Your task to perform on an android device: toggle javascript in the chrome app Image 0: 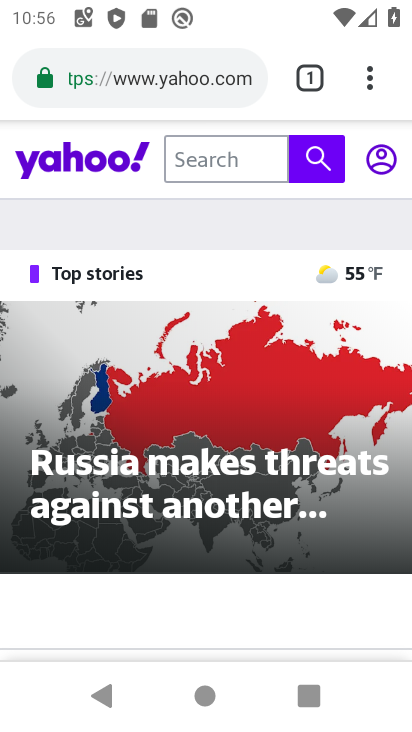
Step 0: press home button
Your task to perform on an android device: toggle javascript in the chrome app Image 1: 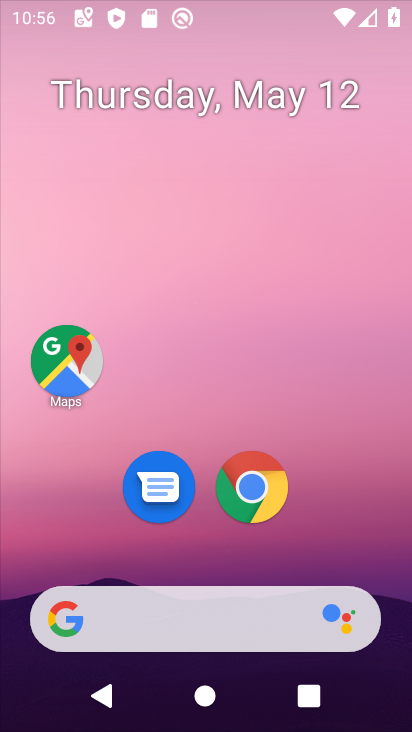
Step 1: drag from (61, 603) to (295, 183)
Your task to perform on an android device: toggle javascript in the chrome app Image 2: 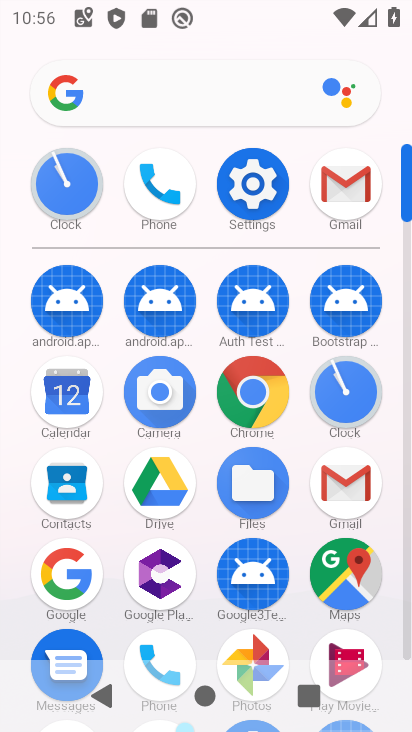
Step 2: click (251, 381)
Your task to perform on an android device: toggle javascript in the chrome app Image 3: 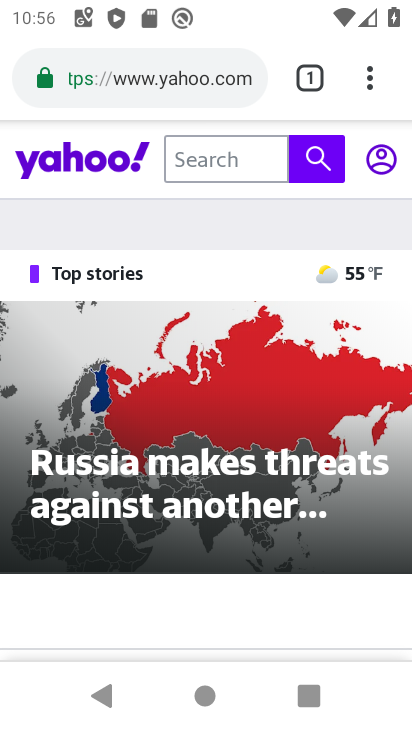
Step 3: click (368, 73)
Your task to perform on an android device: toggle javascript in the chrome app Image 4: 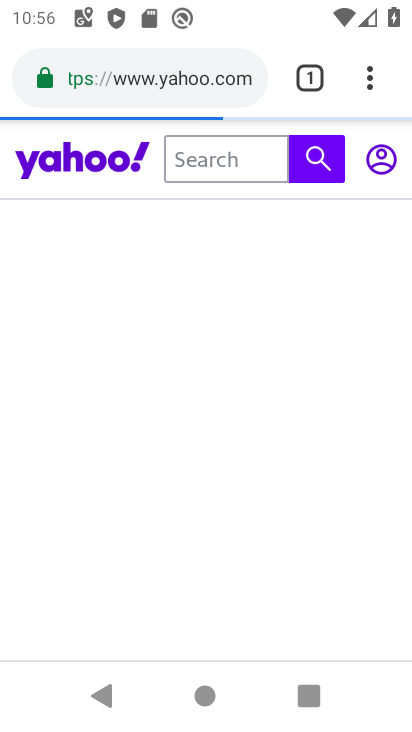
Step 4: click (353, 62)
Your task to perform on an android device: toggle javascript in the chrome app Image 5: 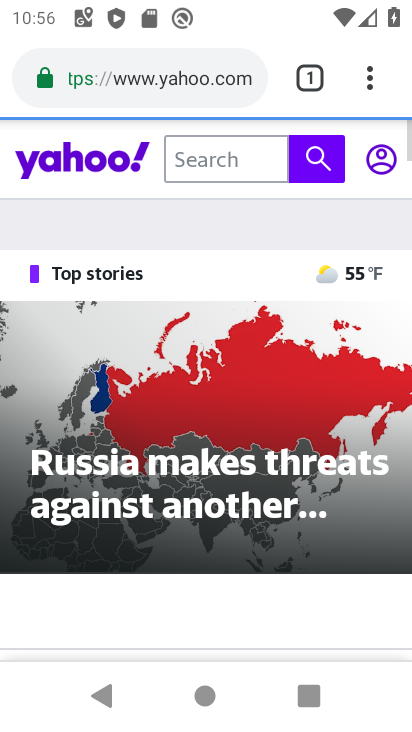
Step 5: click (370, 81)
Your task to perform on an android device: toggle javascript in the chrome app Image 6: 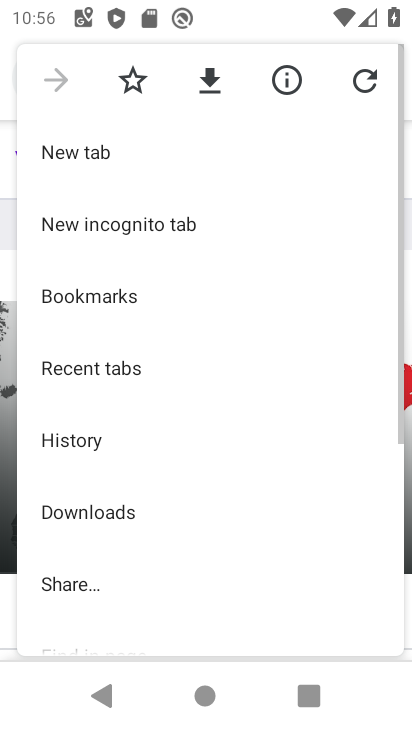
Step 6: drag from (86, 614) to (270, 132)
Your task to perform on an android device: toggle javascript in the chrome app Image 7: 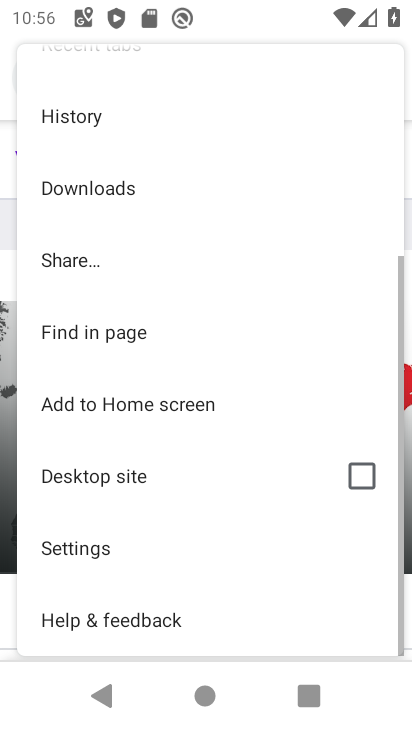
Step 7: click (110, 557)
Your task to perform on an android device: toggle javascript in the chrome app Image 8: 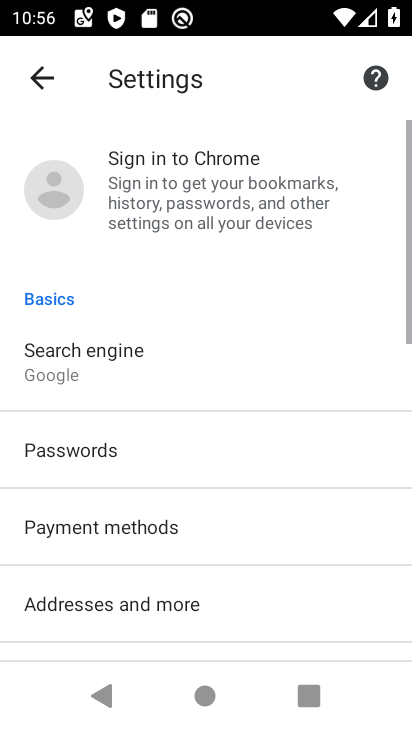
Step 8: drag from (40, 557) to (192, 196)
Your task to perform on an android device: toggle javascript in the chrome app Image 9: 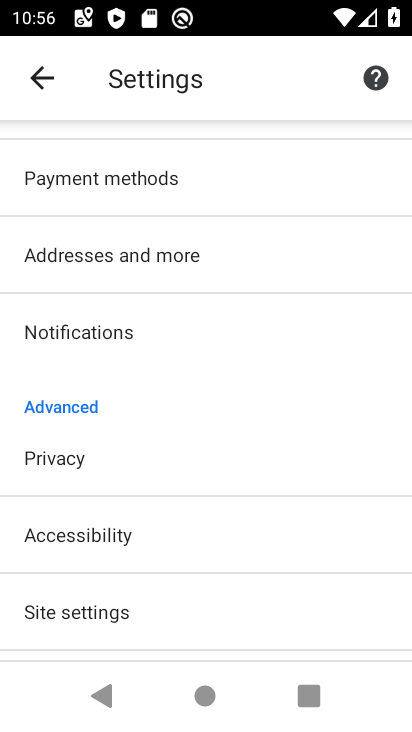
Step 9: click (67, 608)
Your task to perform on an android device: toggle javascript in the chrome app Image 10: 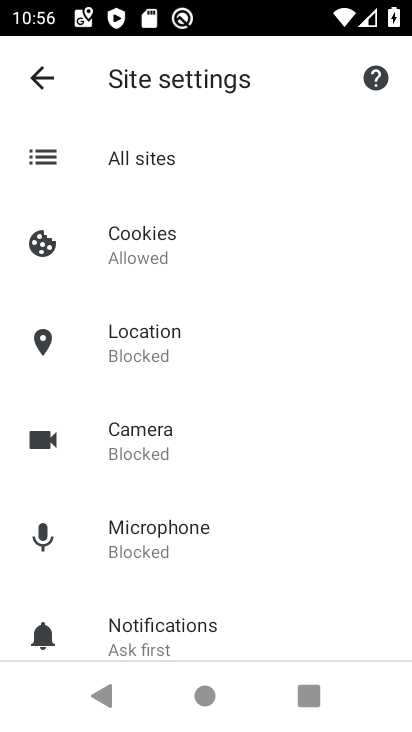
Step 10: drag from (36, 645) to (284, 116)
Your task to perform on an android device: toggle javascript in the chrome app Image 11: 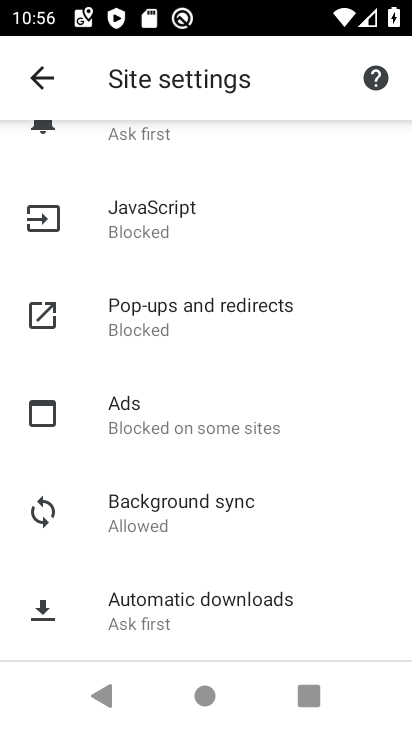
Step 11: click (128, 232)
Your task to perform on an android device: toggle javascript in the chrome app Image 12: 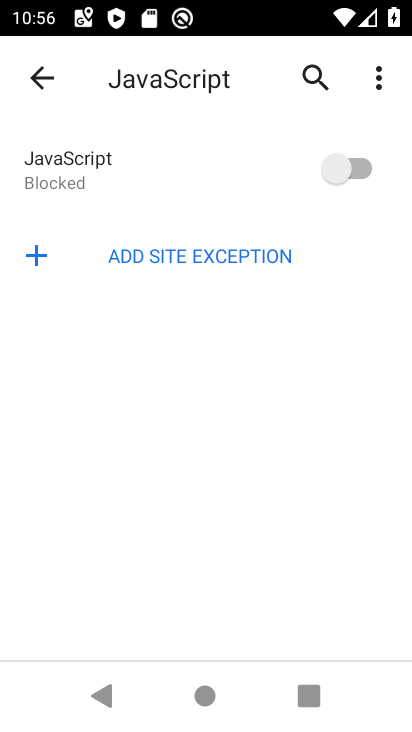
Step 12: click (320, 177)
Your task to perform on an android device: toggle javascript in the chrome app Image 13: 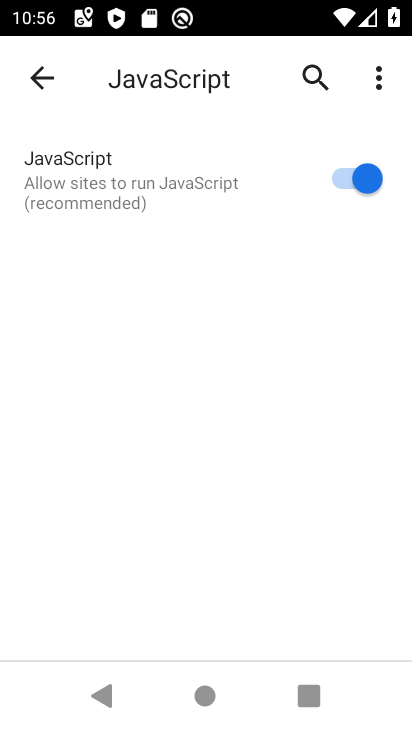
Step 13: task complete